Your task to perform on an android device: turn pop-ups off in chrome Image 0: 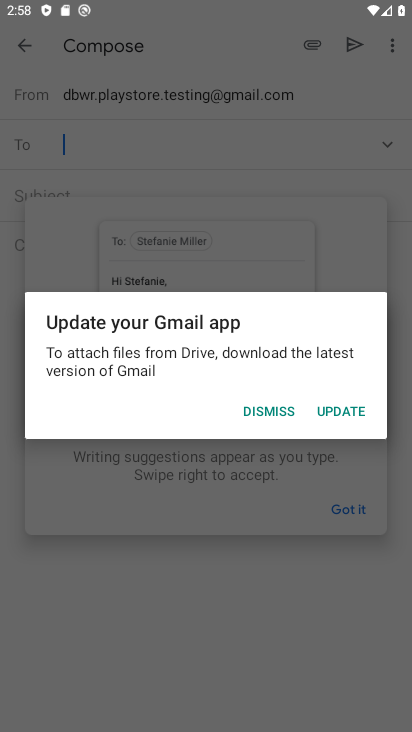
Step 0: press home button
Your task to perform on an android device: turn pop-ups off in chrome Image 1: 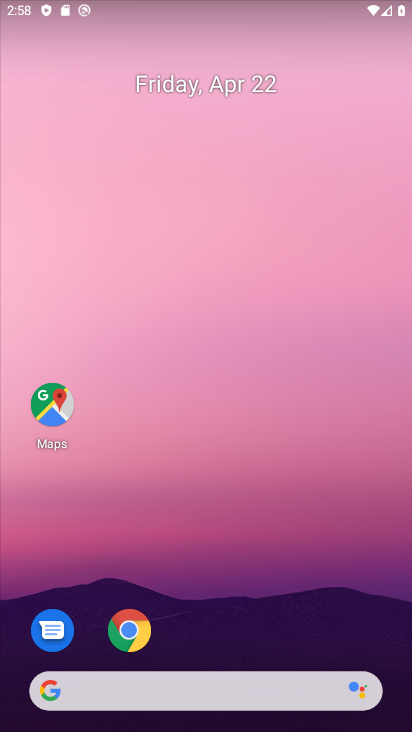
Step 1: click (131, 627)
Your task to perform on an android device: turn pop-ups off in chrome Image 2: 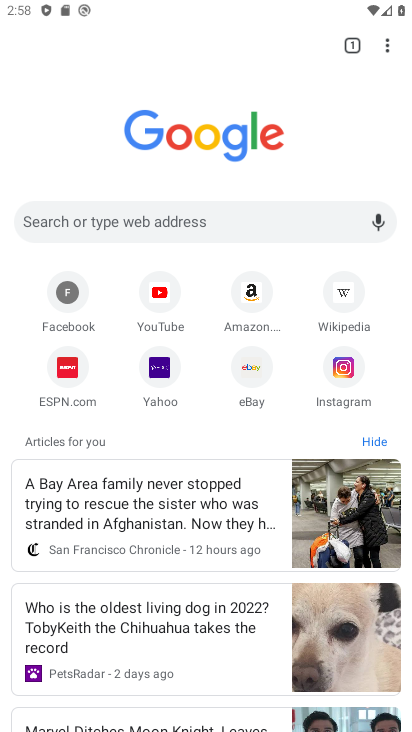
Step 2: click (388, 47)
Your task to perform on an android device: turn pop-ups off in chrome Image 3: 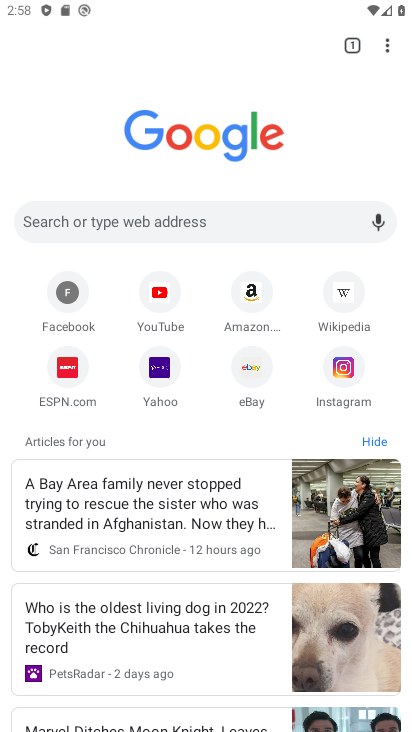
Step 3: click (386, 52)
Your task to perform on an android device: turn pop-ups off in chrome Image 4: 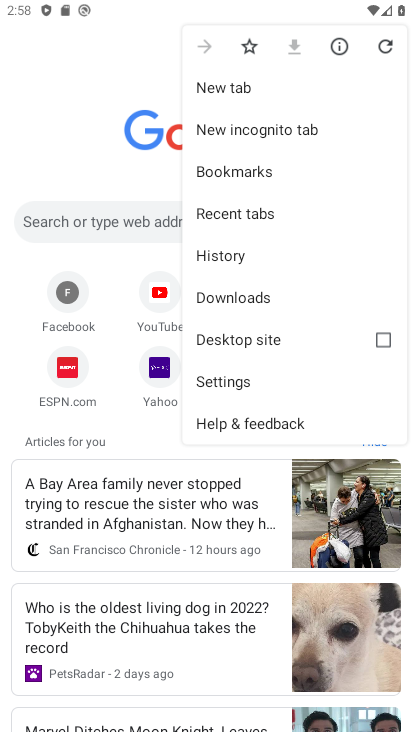
Step 4: click (231, 379)
Your task to perform on an android device: turn pop-ups off in chrome Image 5: 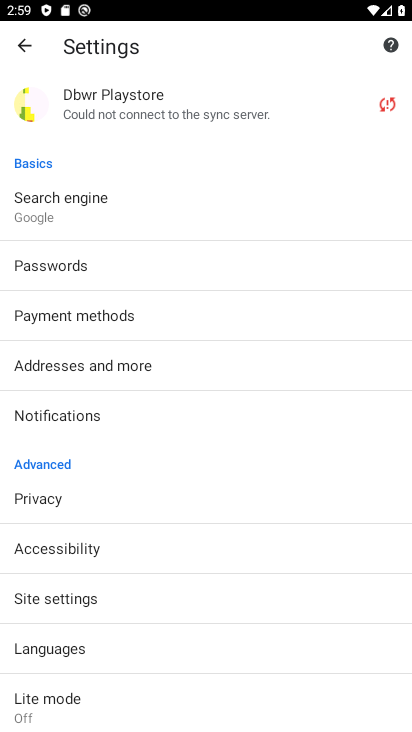
Step 5: drag from (95, 524) to (133, 124)
Your task to perform on an android device: turn pop-ups off in chrome Image 6: 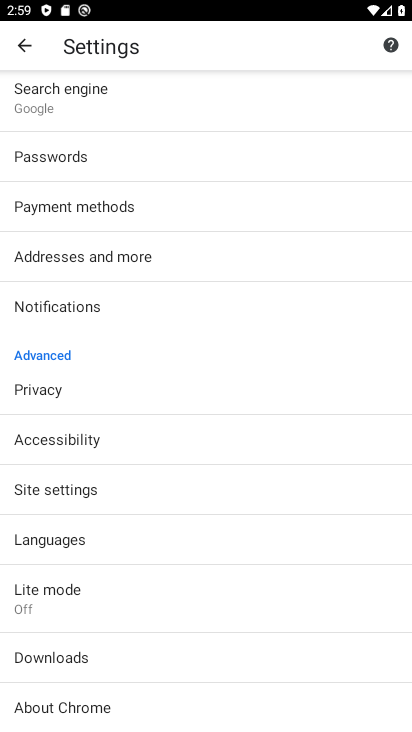
Step 6: drag from (64, 585) to (140, 432)
Your task to perform on an android device: turn pop-ups off in chrome Image 7: 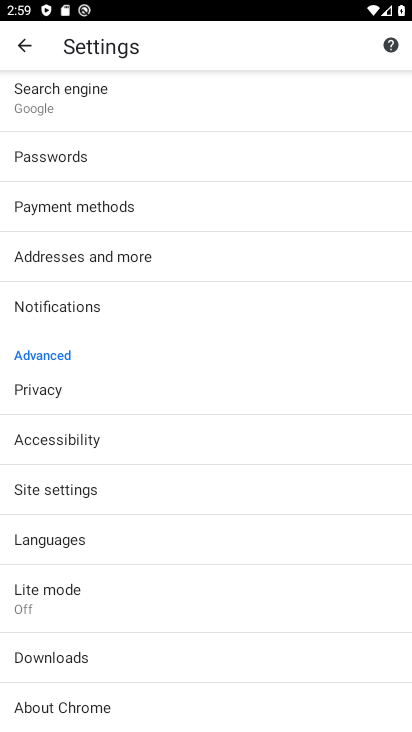
Step 7: click (57, 490)
Your task to perform on an android device: turn pop-ups off in chrome Image 8: 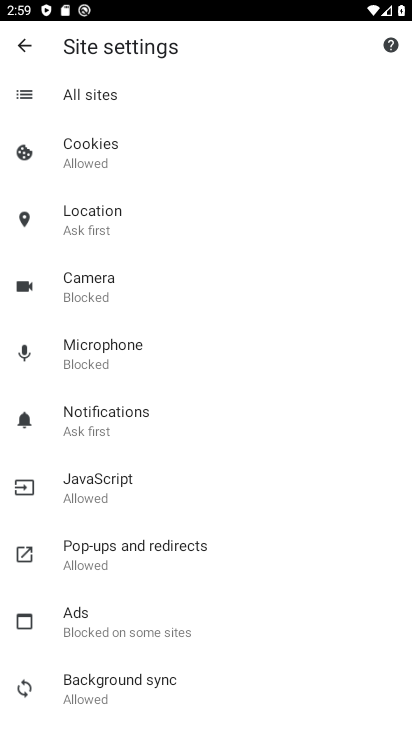
Step 8: click (106, 551)
Your task to perform on an android device: turn pop-ups off in chrome Image 9: 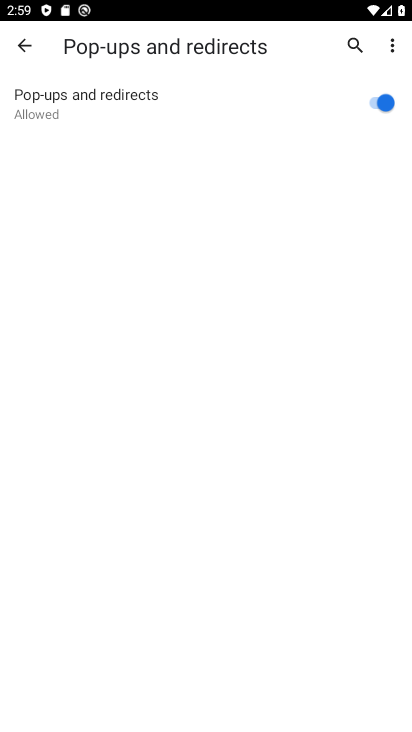
Step 9: click (362, 93)
Your task to perform on an android device: turn pop-ups off in chrome Image 10: 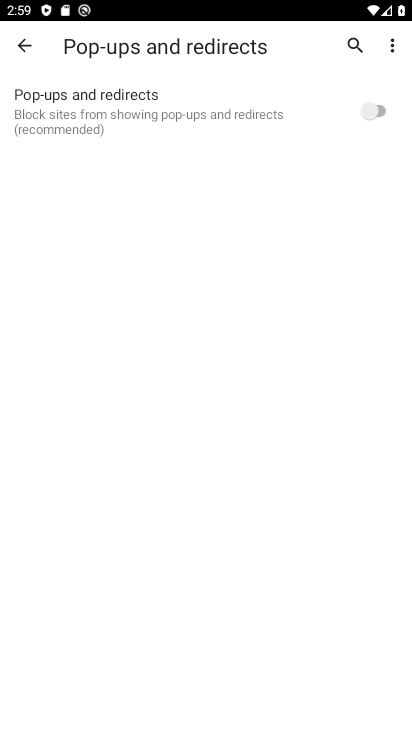
Step 10: task complete